Your task to perform on an android device: Open Chrome and go to settings Image 0: 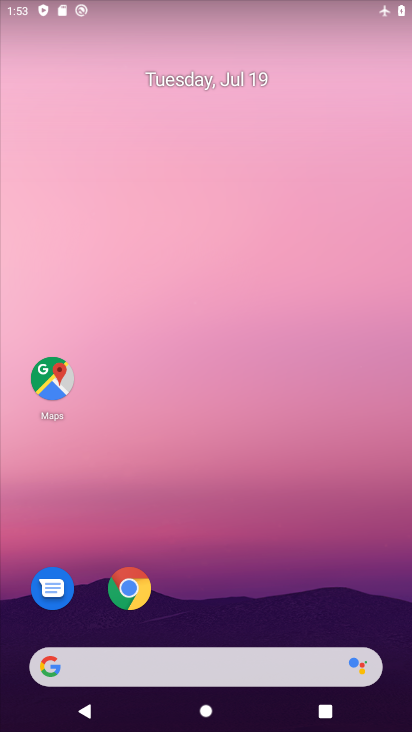
Step 0: press home button
Your task to perform on an android device: Open Chrome and go to settings Image 1: 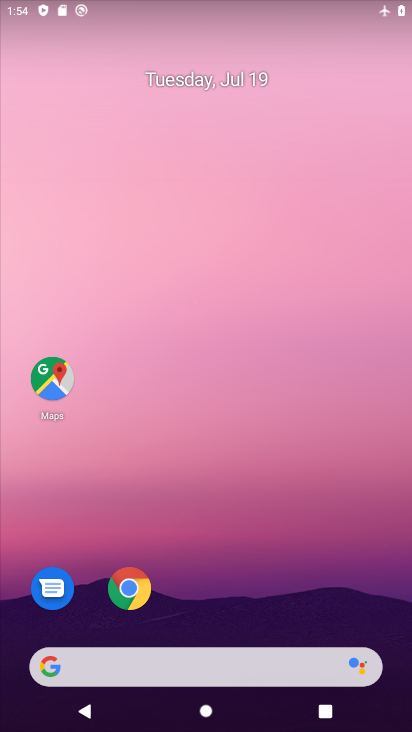
Step 1: drag from (262, 609) to (383, 6)
Your task to perform on an android device: Open Chrome and go to settings Image 2: 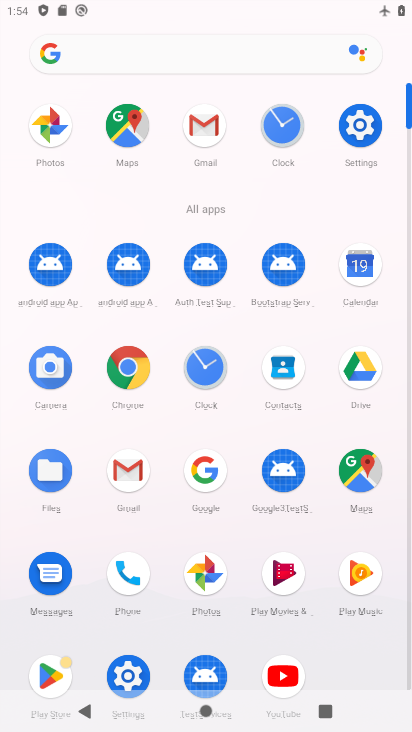
Step 2: click (119, 358)
Your task to perform on an android device: Open Chrome and go to settings Image 3: 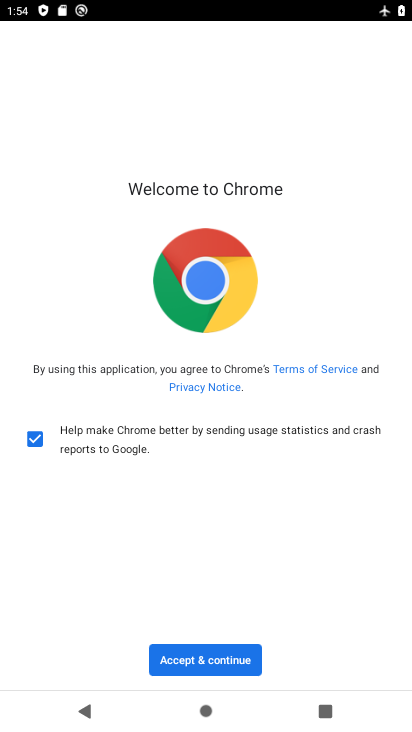
Step 3: click (188, 663)
Your task to perform on an android device: Open Chrome and go to settings Image 4: 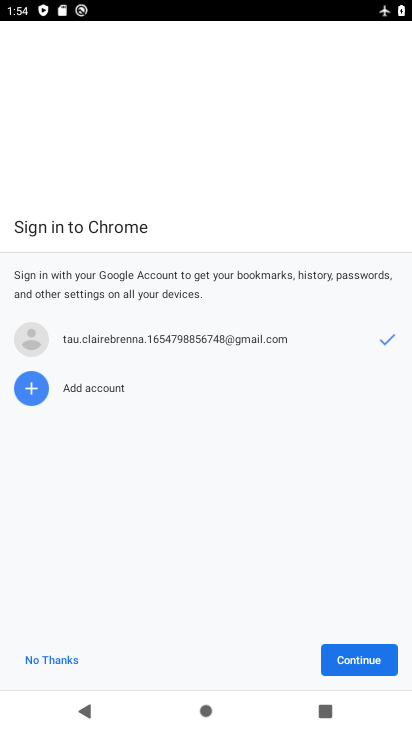
Step 4: click (334, 662)
Your task to perform on an android device: Open Chrome and go to settings Image 5: 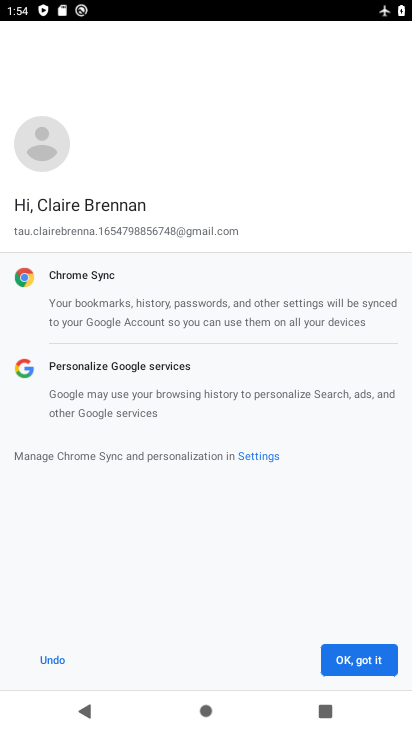
Step 5: click (334, 662)
Your task to perform on an android device: Open Chrome and go to settings Image 6: 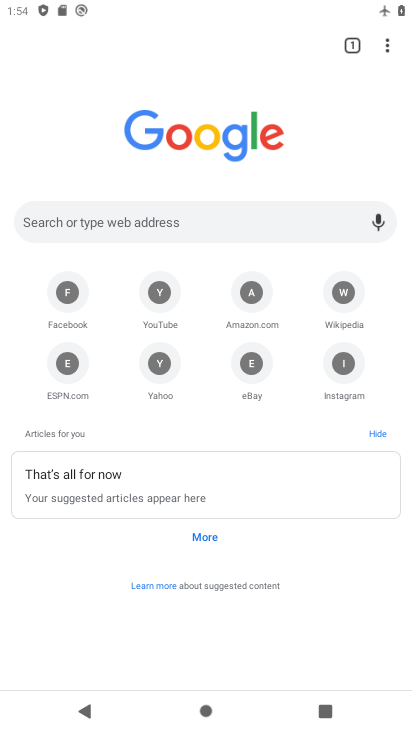
Step 6: task complete